Your task to perform on an android device: toggle wifi Image 0: 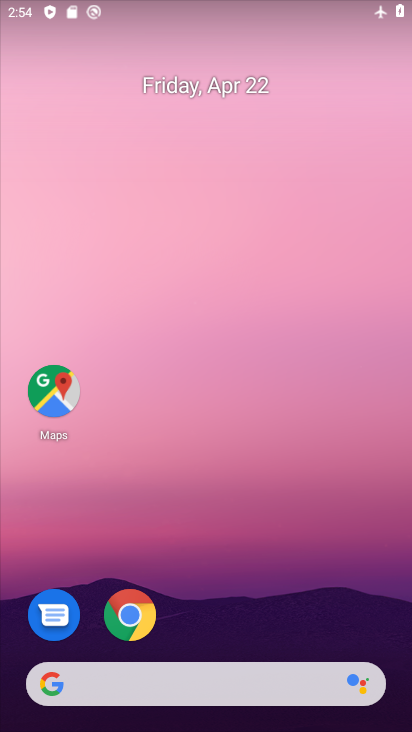
Step 0: drag from (286, 622) to (292, 140)
Your task to perform on an android device: toggle wifi Image 1: 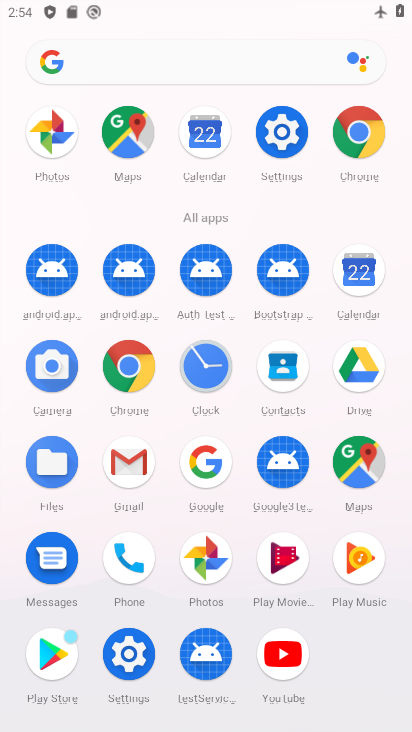
Step 1: click (276, 148)
Your task to perform on an android device: toggle wifi Image 2: 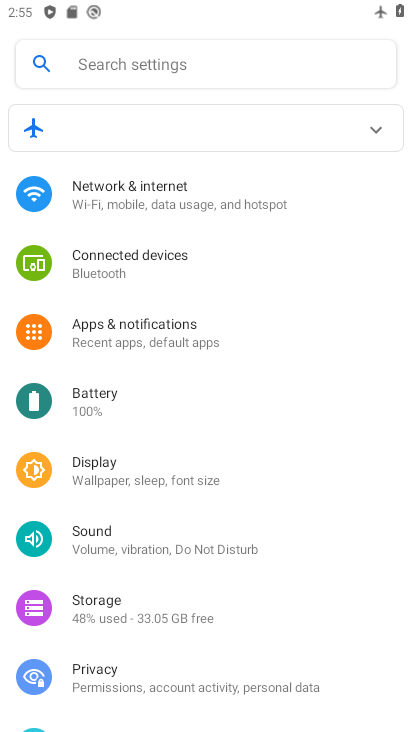
Step 2: click (257, 180)
Your task to perform on an android device: toggle wifi Image 3: 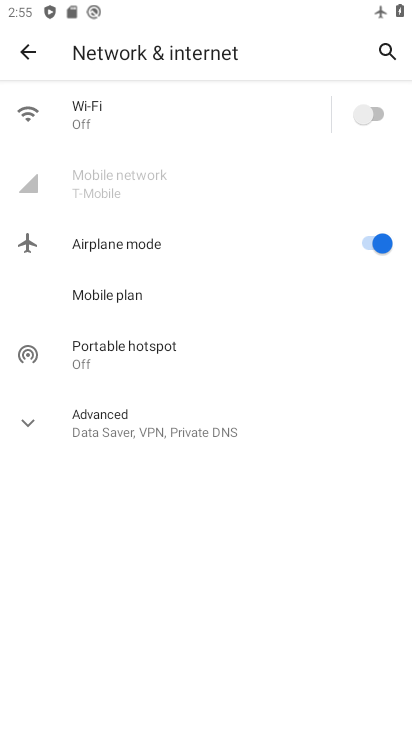
Step 3: click (369, 104)
Your task to perform on an android device: toggle wifi Image 4: 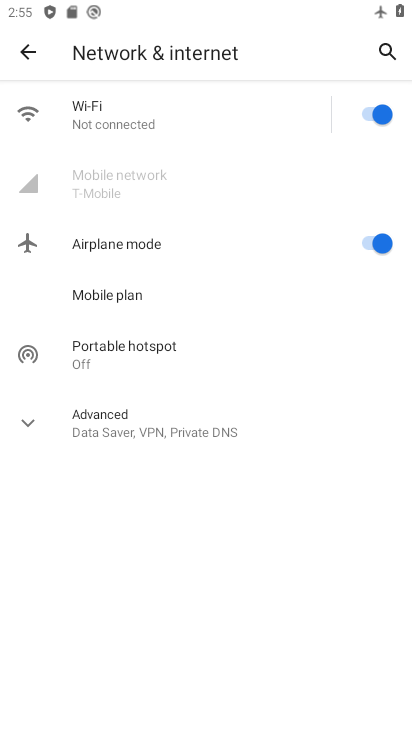
Step 4: task complete